Your task to perform on an android device: turn off improve location accuracy Image 0: 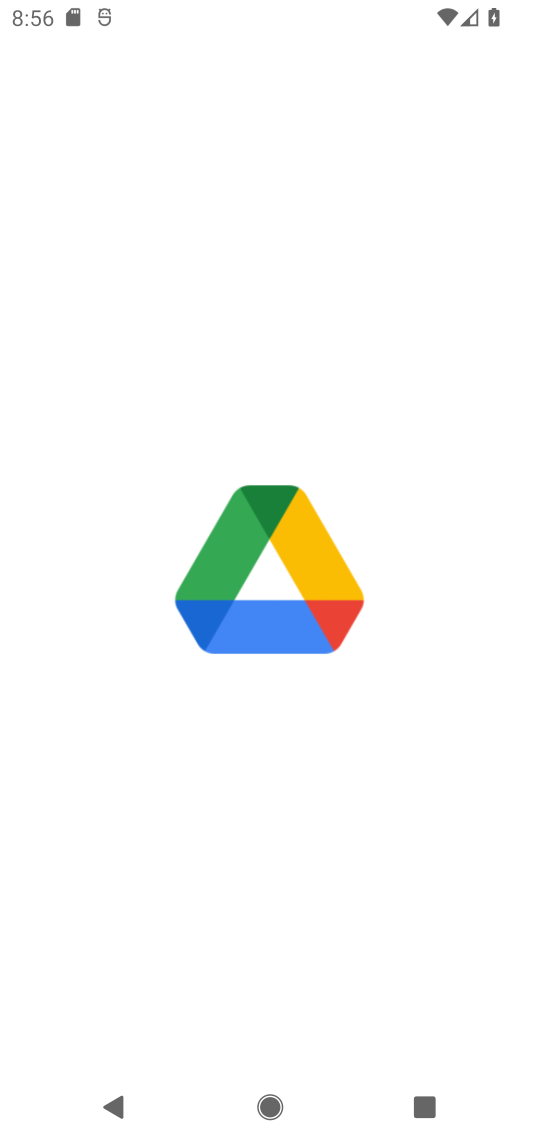
Step 0: press home button
Your task to perform on an android device: turn off improve location accuracy Image 1: 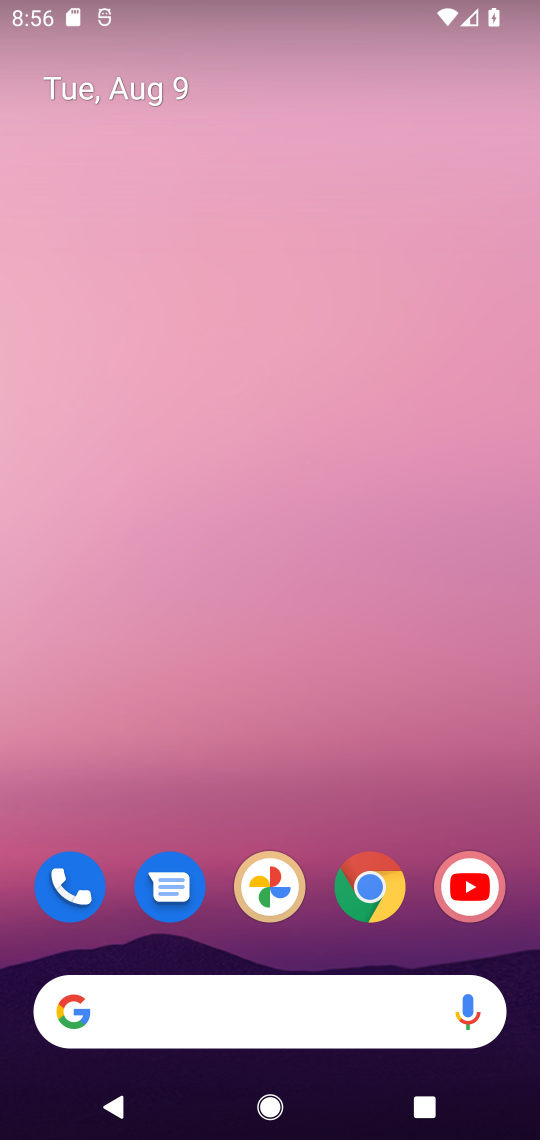
Step 1: drag from (351, 347) to (351, 53)
Your task to perform on an android device: turn off improve location accuracy Image 2: 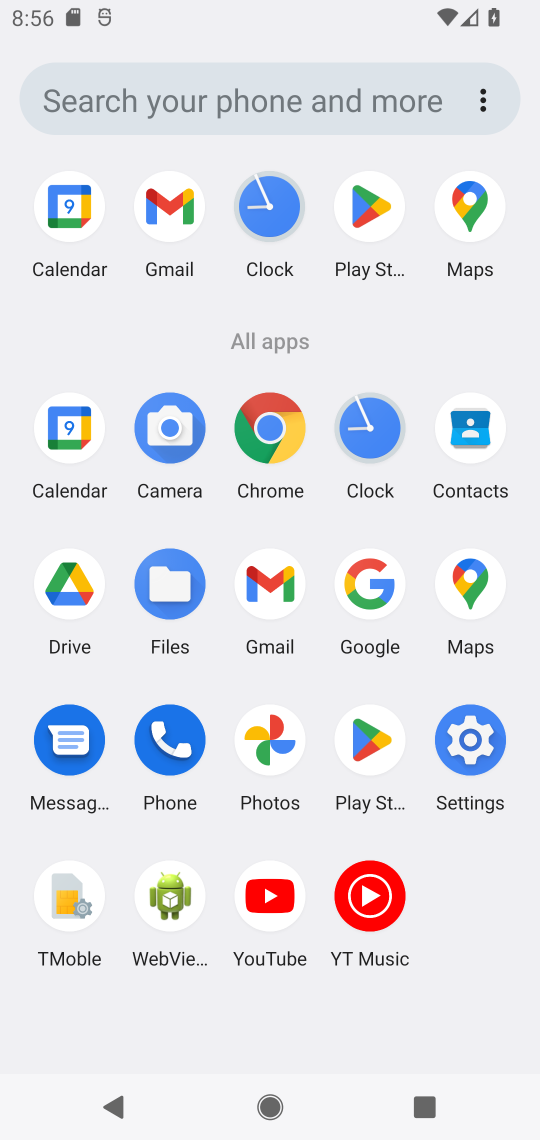
Step 2: click (477, 746)
Your task to perform on an android device: turn off improve location accuracy Image 3: 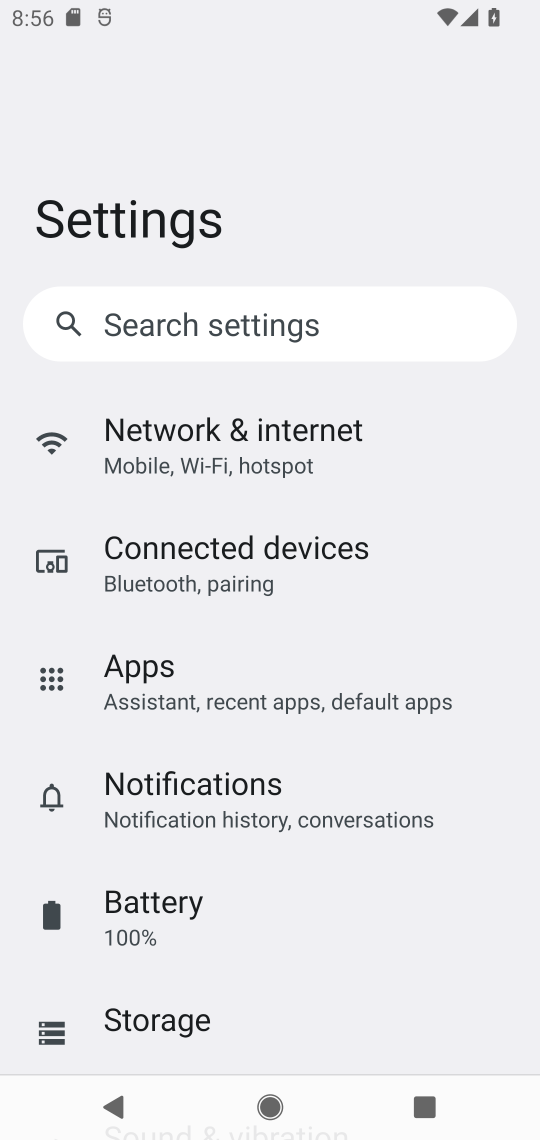
Step 3: drag from (298, 910) to (312, 416)
Your task to perform on an android device: turn off improve location accuracy Image 4: 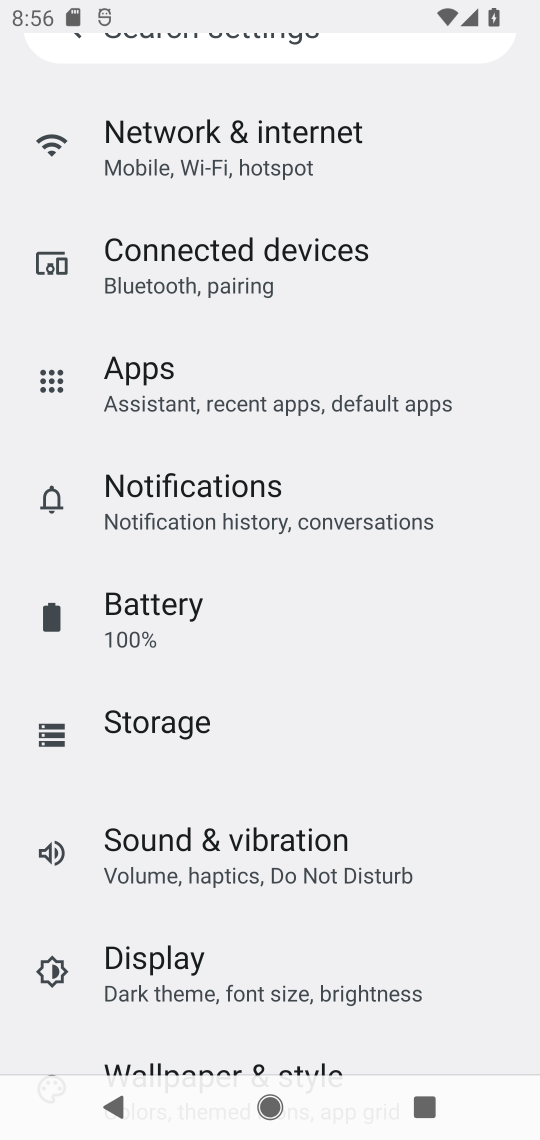
Step 4: drag from (332, 881) to (321, 488)
Your task to perform on an android device: turn off improve location accuracy Image 5: 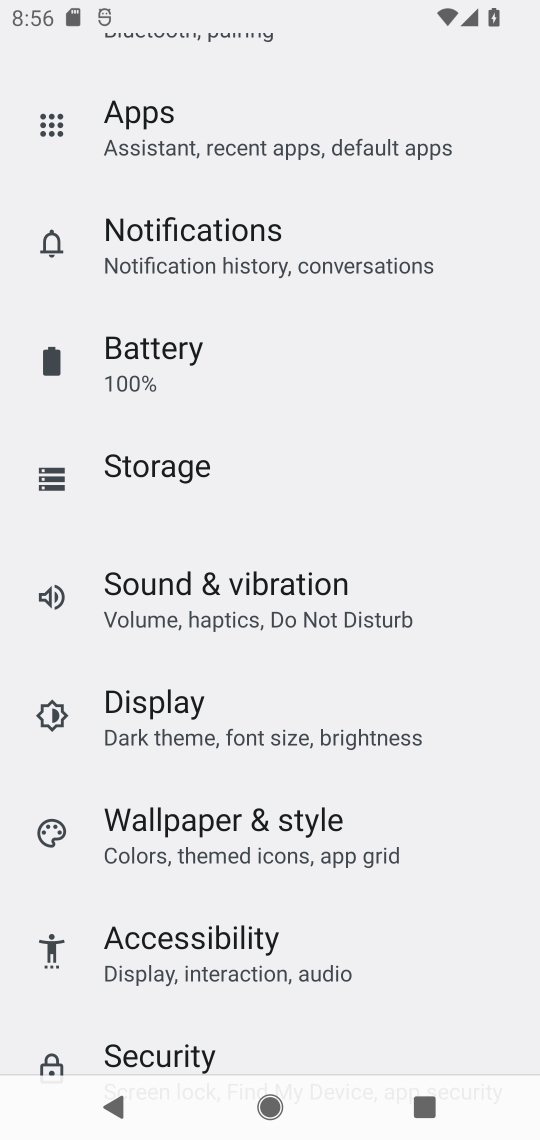
Step 5: drag from (281, 831) to (271, 283)
Your task to perform on an android device: turn off improve location accuracy Image 6: 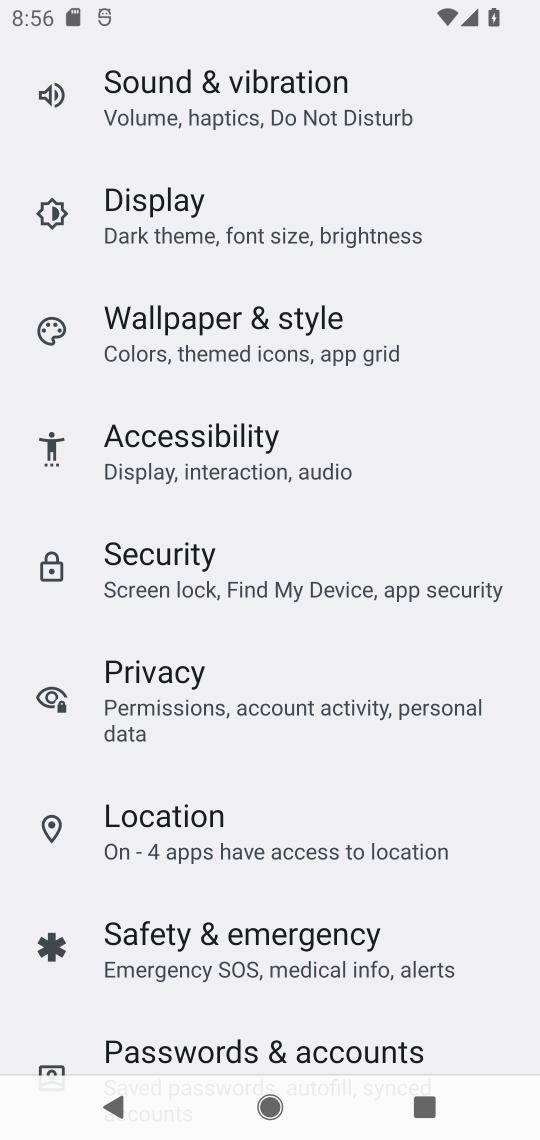
Step 6: click (225, 843)
Your task to perform on an android device: turn off improve location accuracy Image 7: 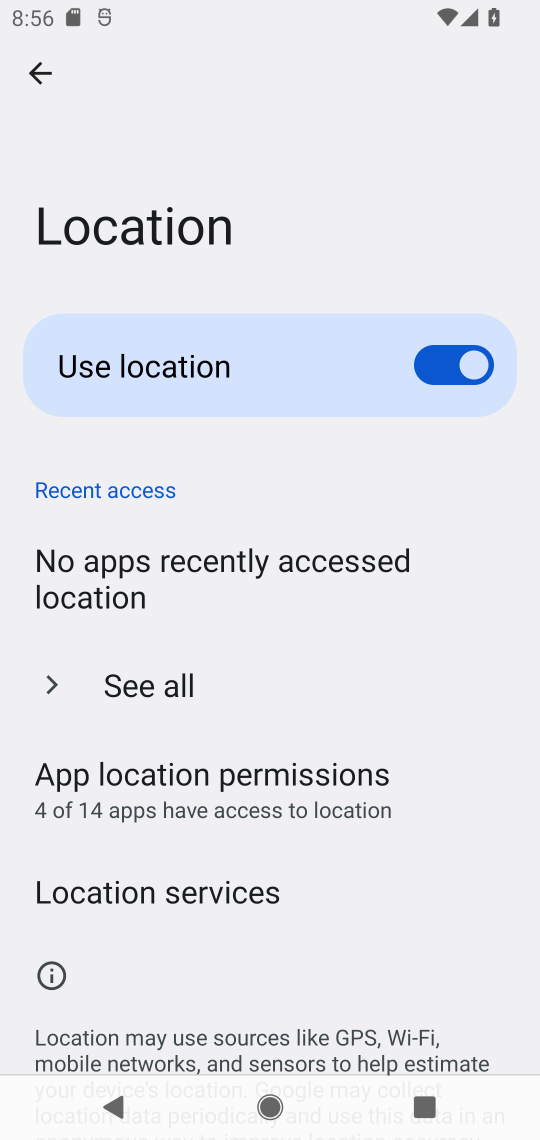
Step 7: drag from (254, 854) to (246, 390)
Your task to perform on an android device: turn off improve location accuracy Image 8: 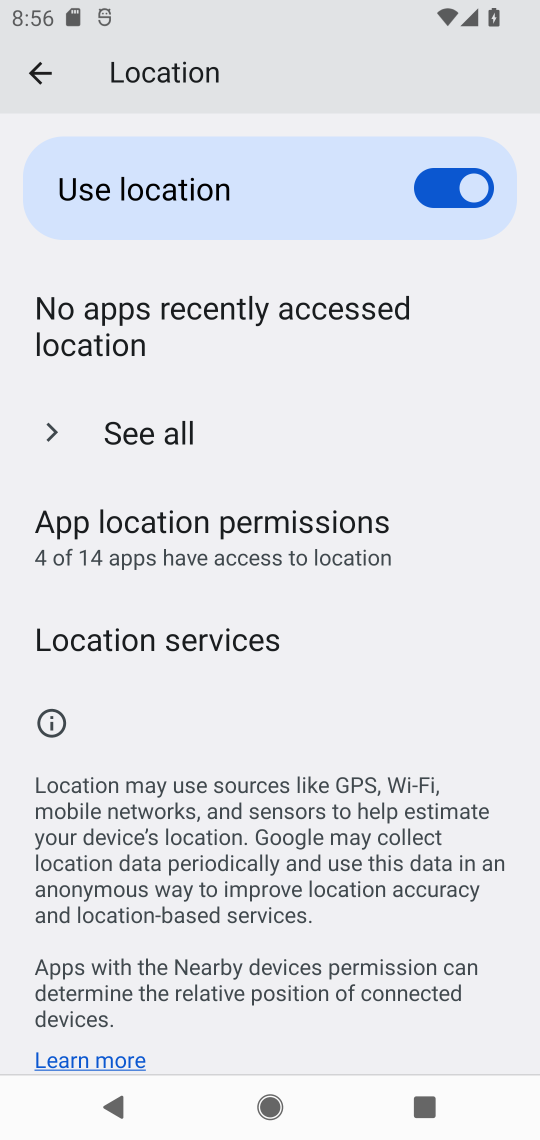
Step 8: click (237, 636)
Your task to perform on an android device: turn off improve location accuracy Image 9: 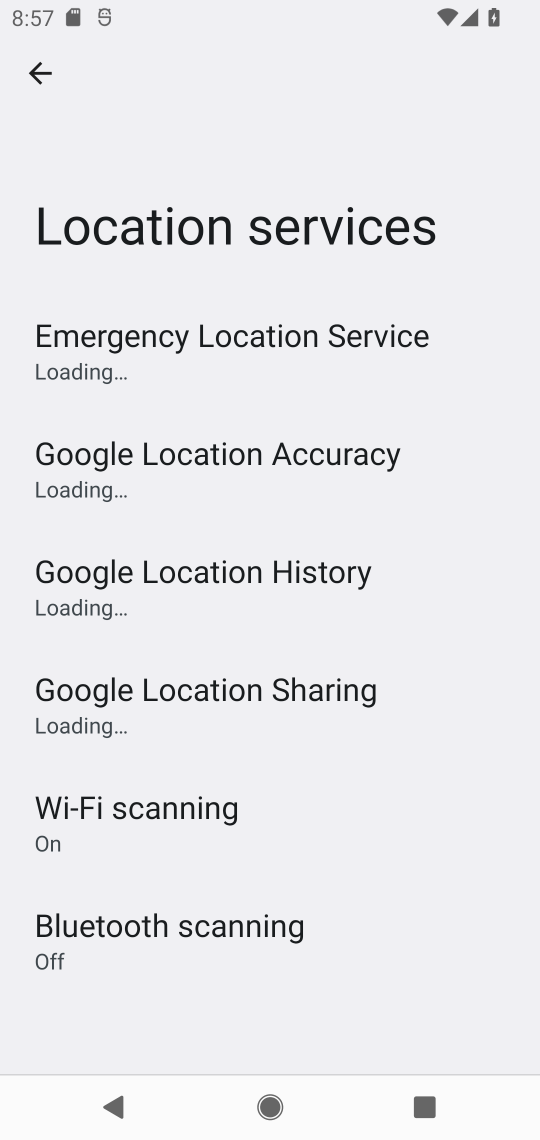
Step 9: click (318, 485)
Your task to perform on an android device: turn off improve location accuracy Image 10: 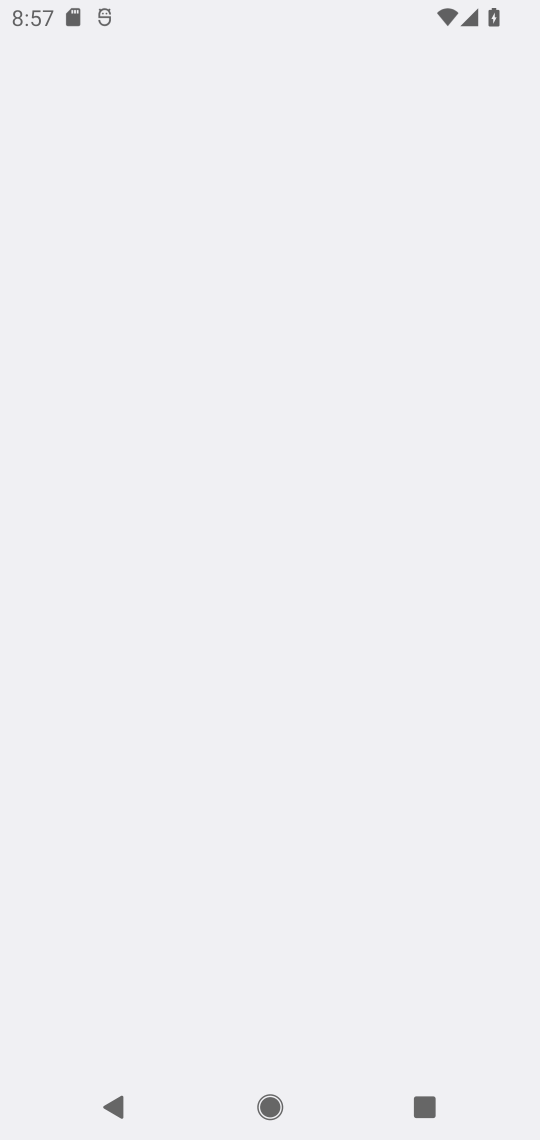
Step 10: task complete